Your task to perform on an android device: Go to Android settings Image 0: 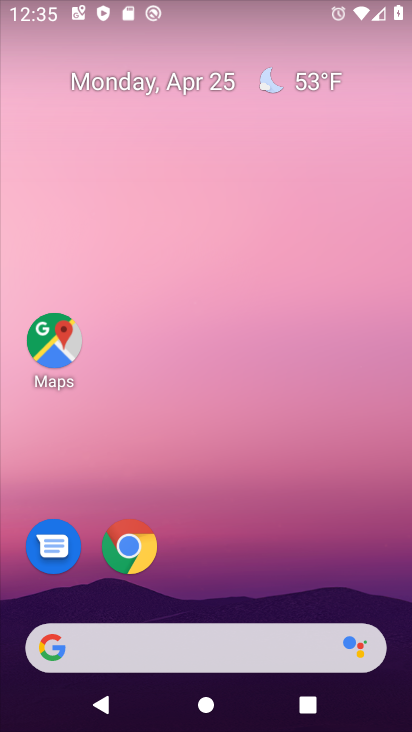
Step 0: drag from (207, 592) to (198, 152)
Your task to perform on an android device: Go to Android settings Image 1: 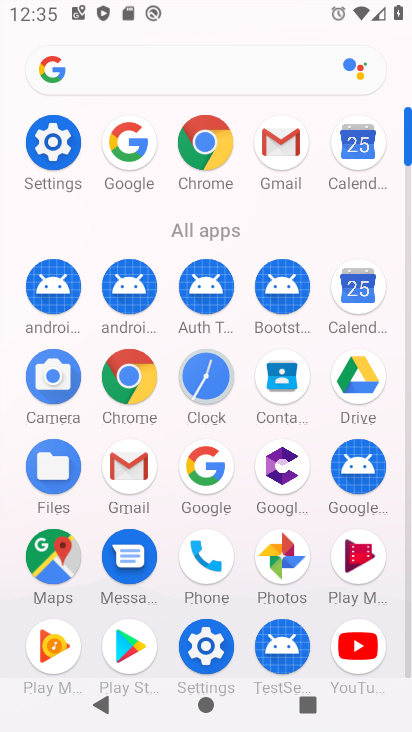
Step 1: click (67, 160)
Your task to perform on an android device: Go to Android settings Image 2: 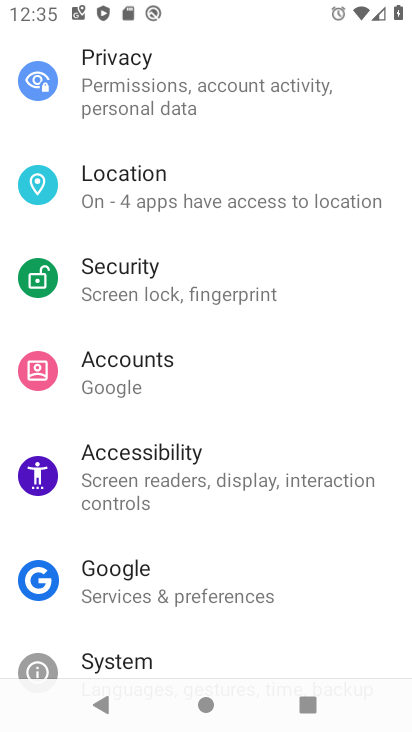
Step 2: task complete